Your task to perform on an android device: turn off notifications in google photos Image 0: 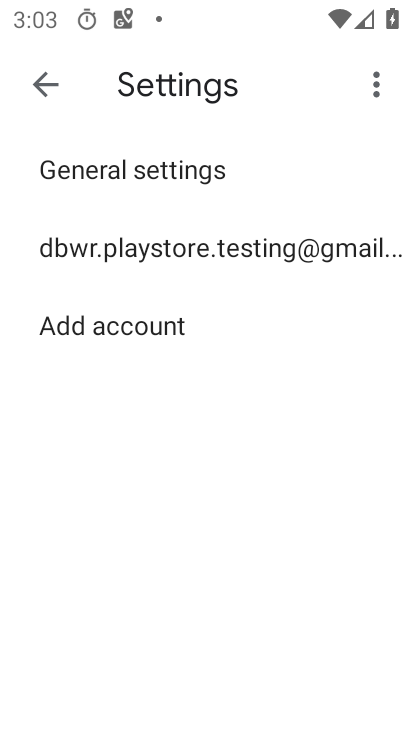
Step 0: press home button
Your task to perform on an android device: turn off notifications in google photos Image 1: 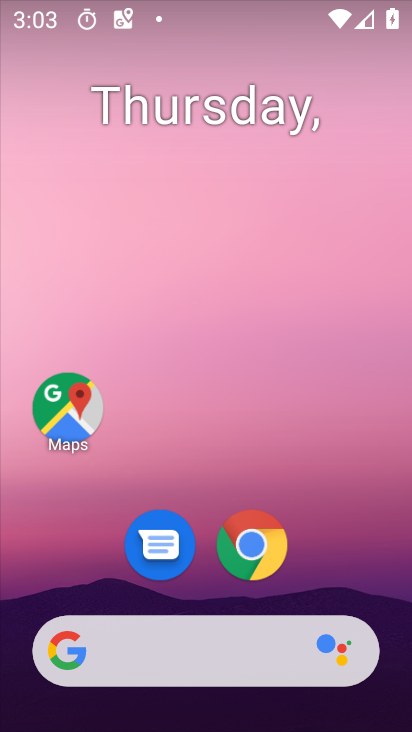
Step 1: drag from (228, 684) to (224, 210)
Your task to perform on an android device: turn off notifications in google photos Image 2: 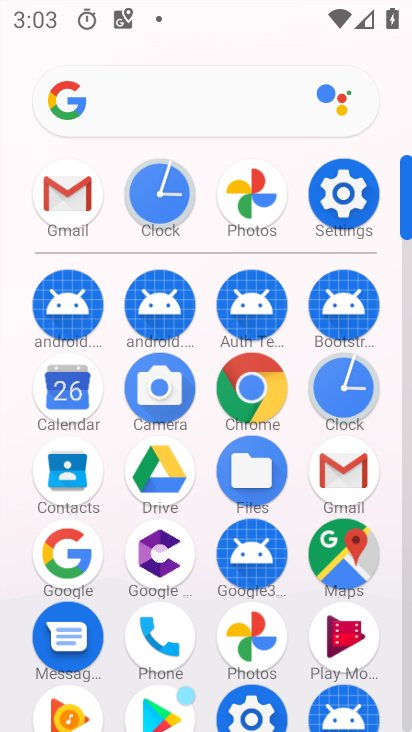
Step 2: click (254, 194)
Your task to perform on an android device: turn off notifications in google photos Image 3: 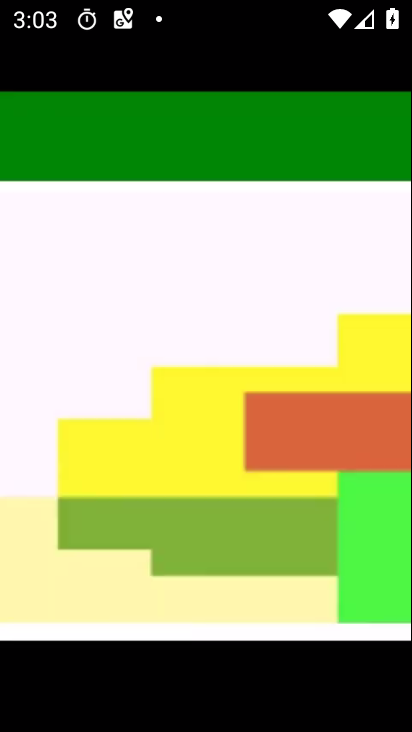
Step 3: click (123, 66)
Your task to perform on an android device: turn off notifications in google photos Image 4: 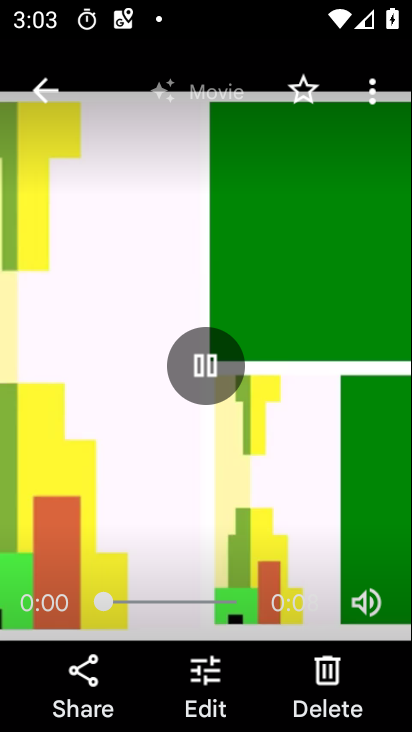
Step 4: click (41, 85)
Your task to perform on an android device: turn off notifications in google photos Image 5: 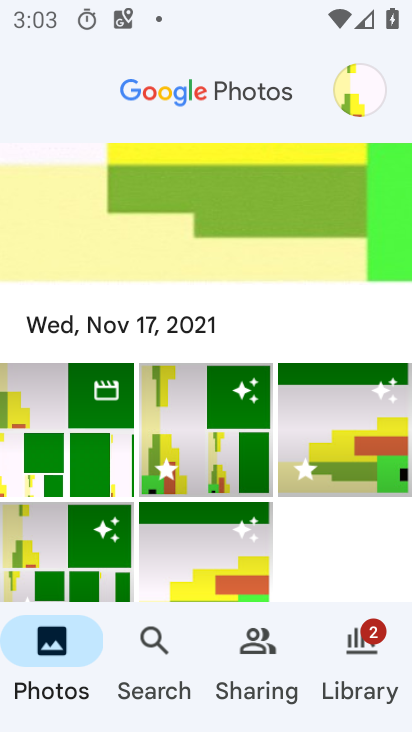
Step 5: click (365, 104)
Your task to perform on an android device: turn off notifications in google photos Image 6: 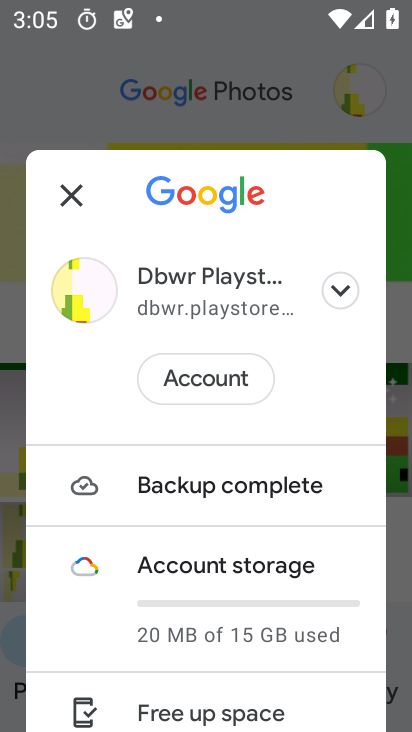
Step 6: drag from (260, 694) to (260, 281)
Your task to perform on an android device: turn off notifications in google photos Image 7: 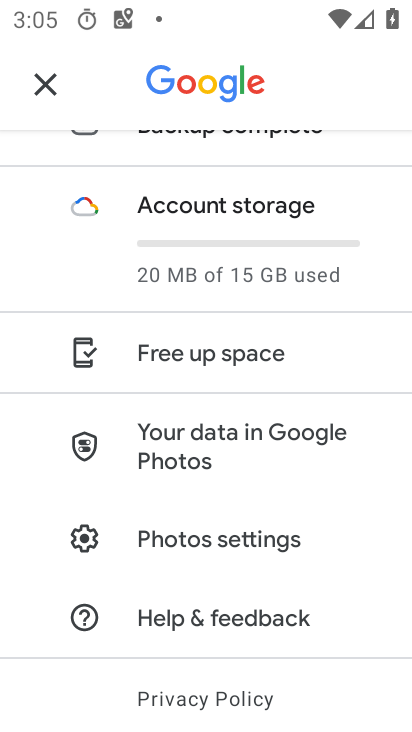
Step 7: click (217, 544)
Your task to perform on an android device: turn off notifications in google photos Image 8: 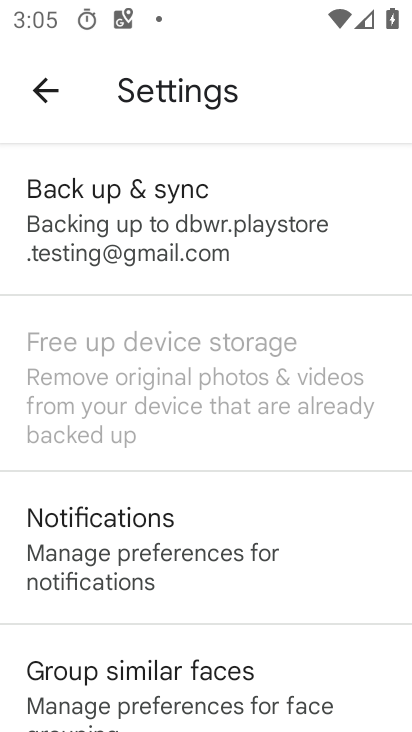
Step 8: click (114, 560)
Your task to perform on an android device: turn off notifications in google photos Image 9: 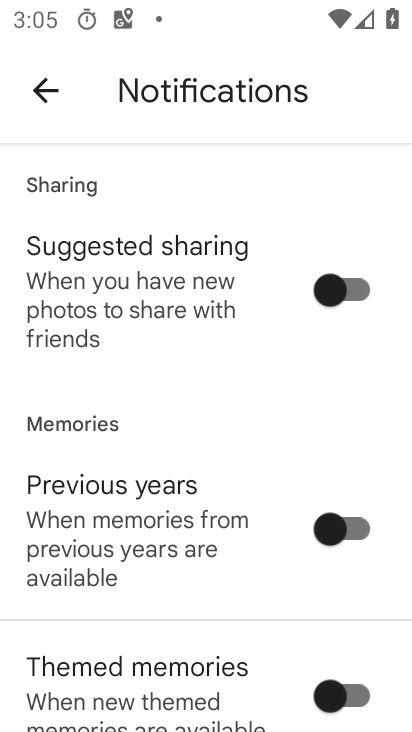
Step 9: drag from (143, 674) to (145, 182)
Your task to perform on an android device: turn off notifications in google photos Image 10: 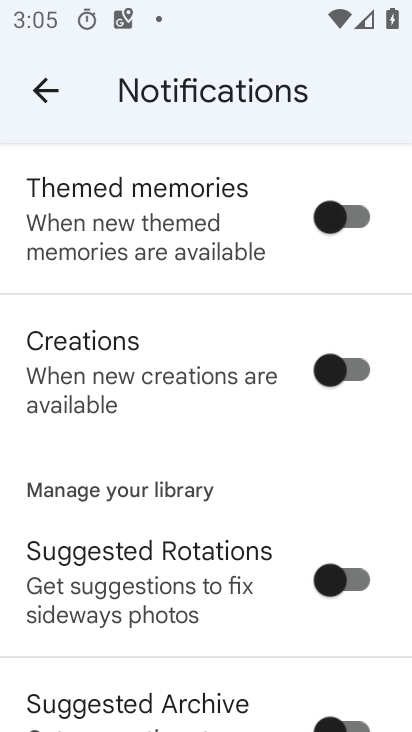
Step 10: drag from (140, 672) to (151, 244)
Your task to perform on an android device: turn off notifications in google photos Image 11: 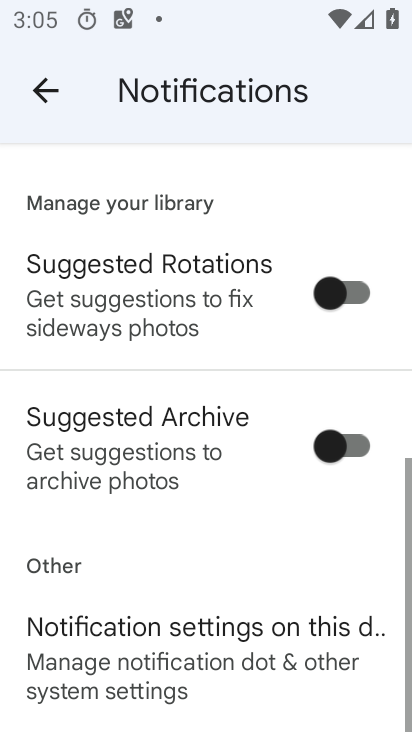
Step 11: click (117, 651)
Your task to perform on an android device: turn off notifications in google photos Image 12: 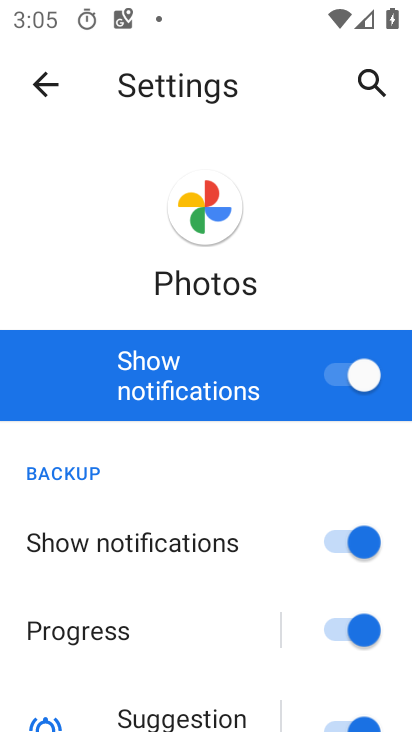
Step 12: click (339, 386)
Your task to perform on an android device: turn off notifications in google photos Image 13: 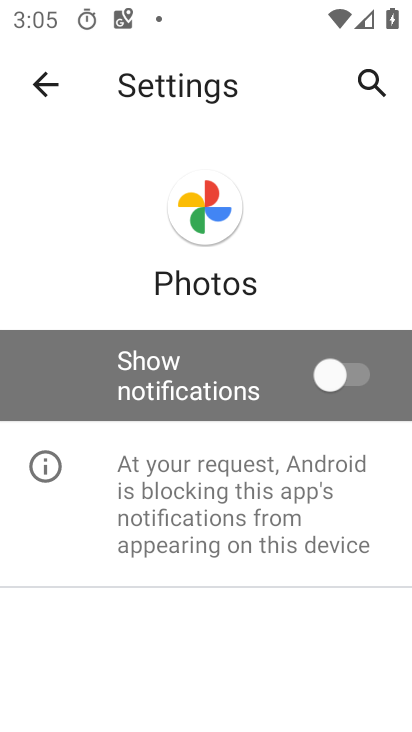
Step 13: task complete